Your task to perform on an android device: turn vacation reply on in the gmail app Image 0: 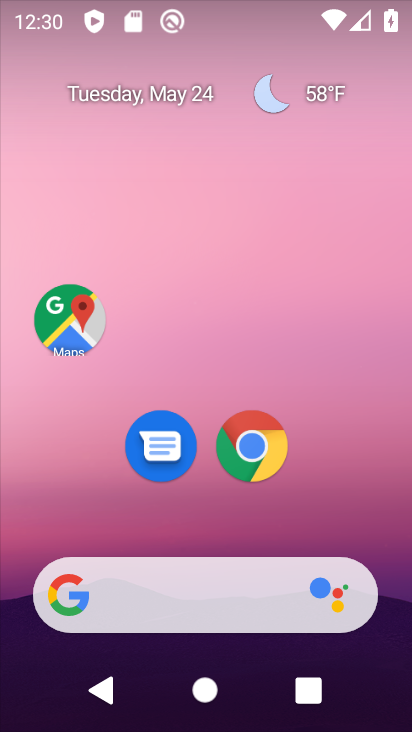
Step 0: drag from (230, 563) to (163, 10)
Your task to perform on an android device: turn vacation reply on in the gmail app Image 1: 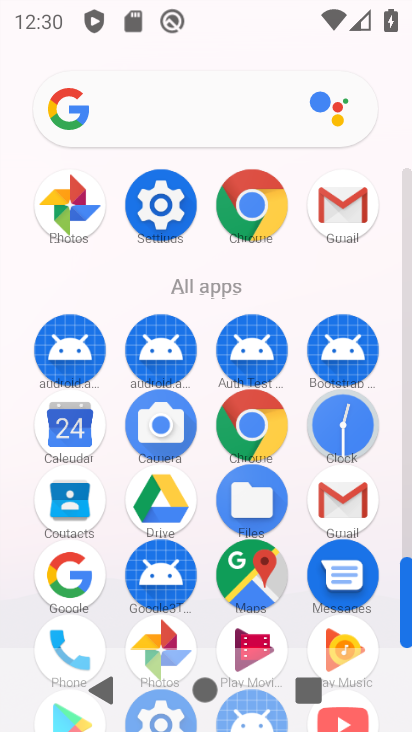
Step 1: click (346, 217)
Your task to perform on an android device: turn vacation reply on in the gmail app Image 2: 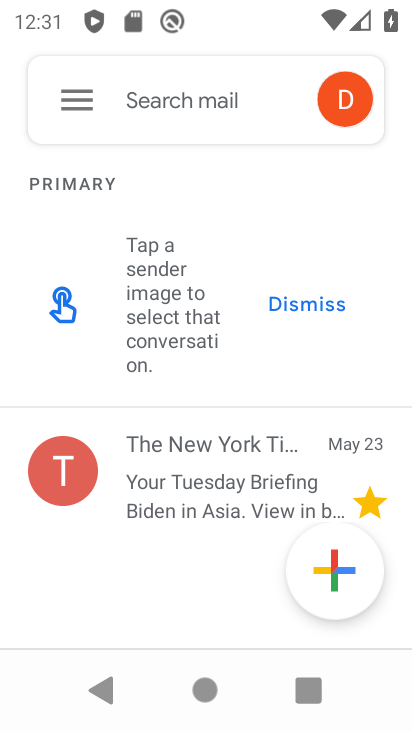
Step 2: click (65, 97)
Your task to perform on an android device: turn vacation reply on in the gmail app Image 3: 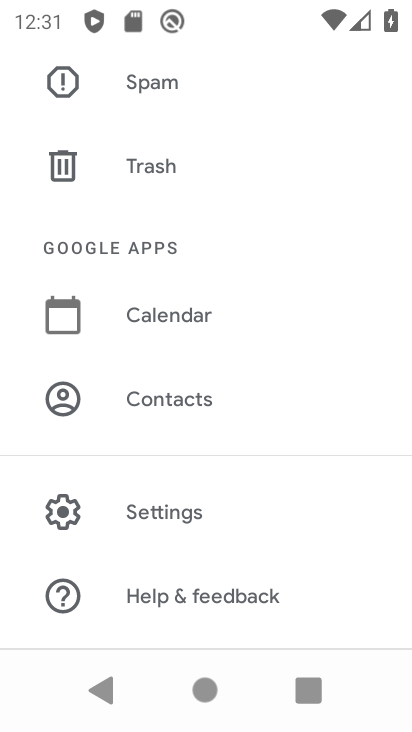
Step 3: click (185, 510)
Your task to perform on an android device: turn vacation reply on in the gmail app Image 4: 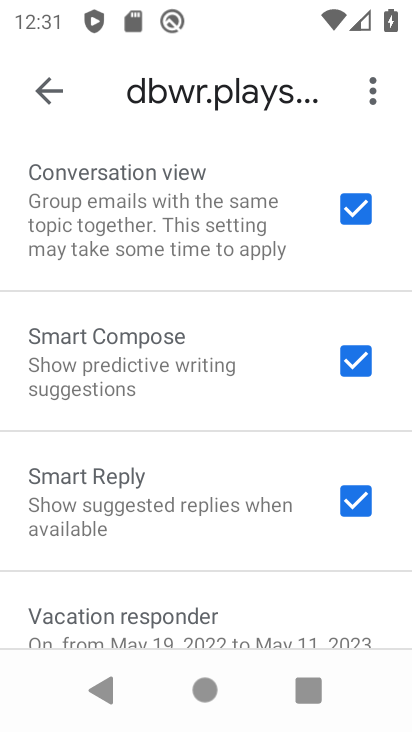
Step 4: click (256, 615)
Your task to perform on an android device: turn vacation reply on in the gmail app Image 5: 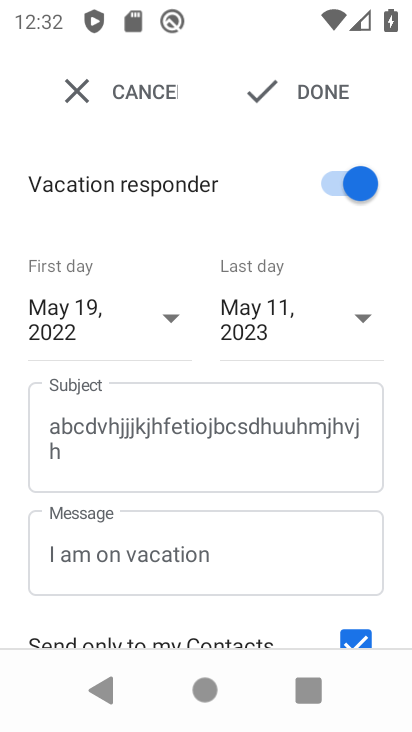
Step 5: task complete